Your task to perform on an android device: change keyboard looks Image 0: 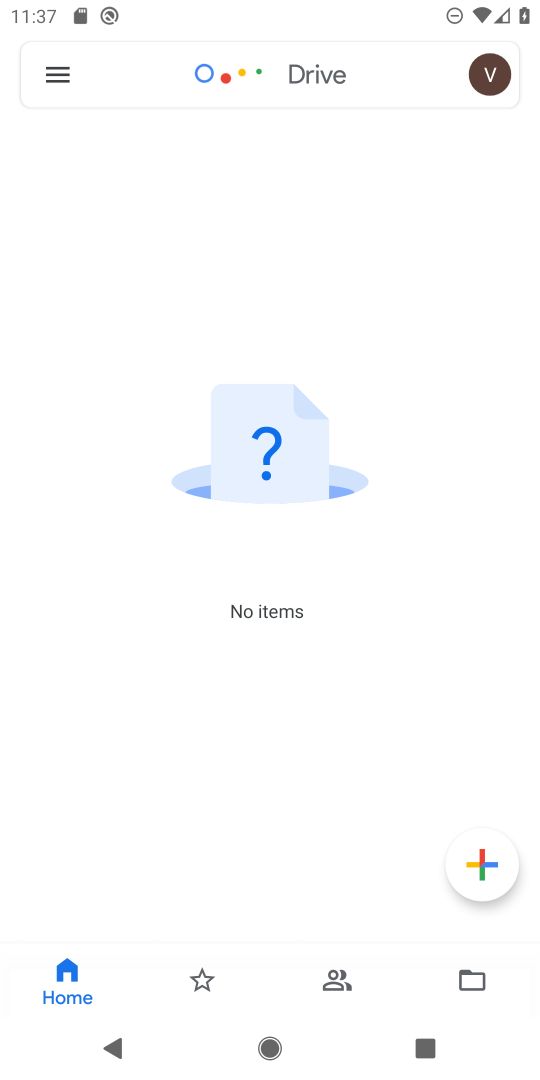
Step 0: press back button
Your task to perform on an android device: change keyboard looks Image 1: 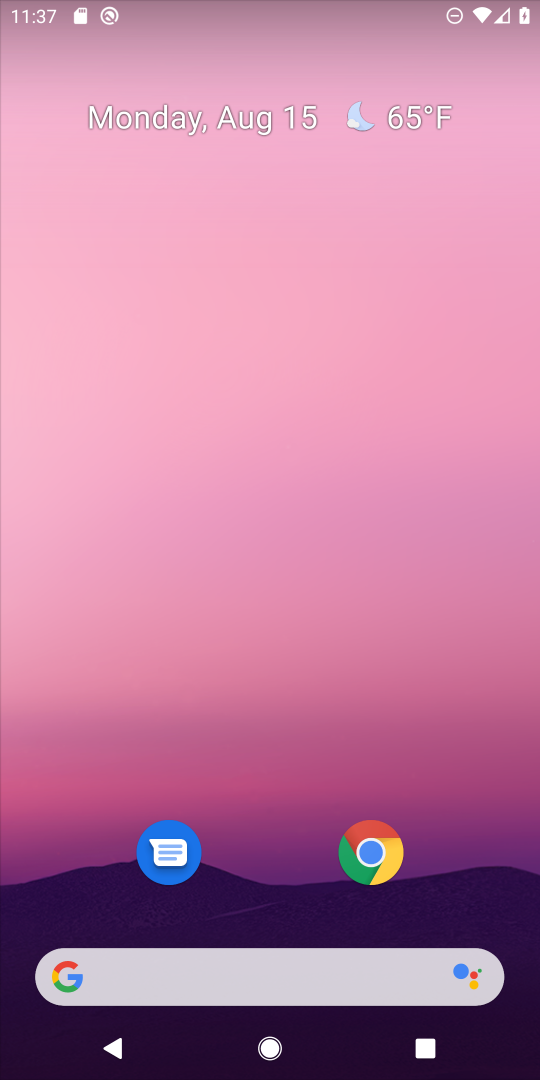
Step 1: drag from (274, 761) to (392, 18)
Your task to perform on an android device: change keyboard looks Image 2: 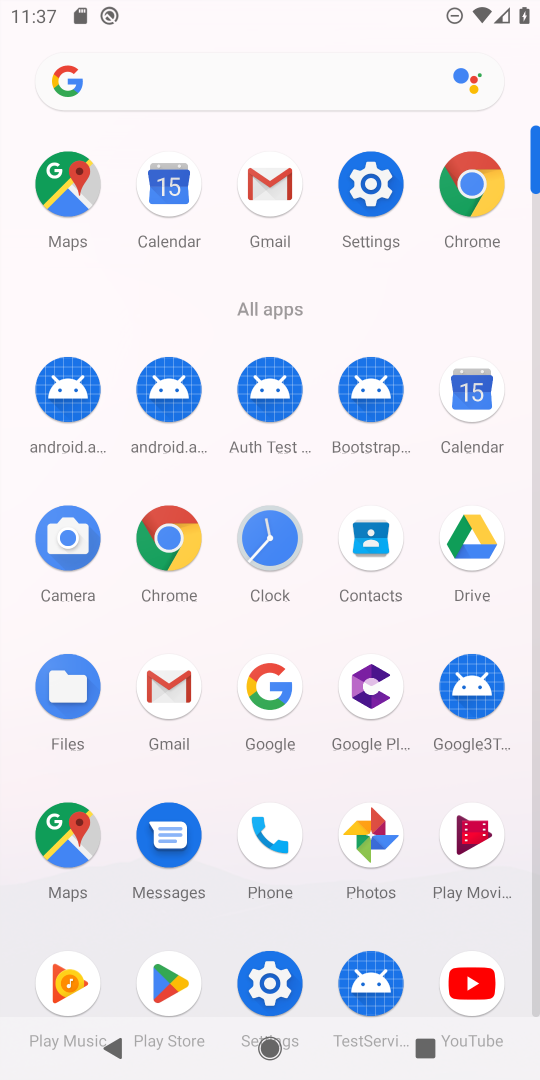
Step 2: click (381, 171)
Your task to perform on an android device: change keyboard looks Image 3: 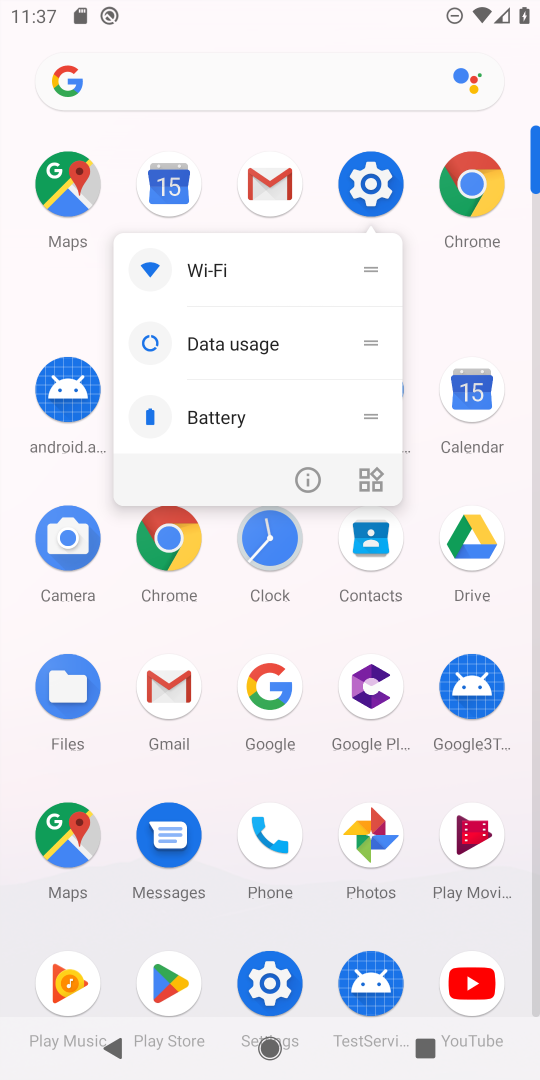
Step 3: click (360, 185)
Your task to perform on an android device: change keyboard looks Image 4: 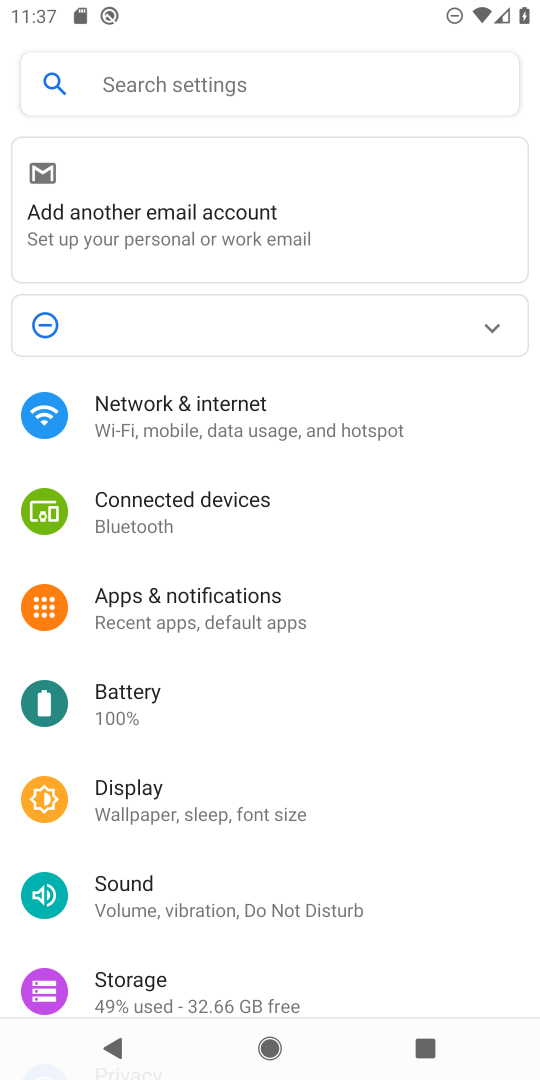
Step 4: drag from (189, 969) to (373, 11)
Your task to perform on an android device: change keyboard looks Image 5: 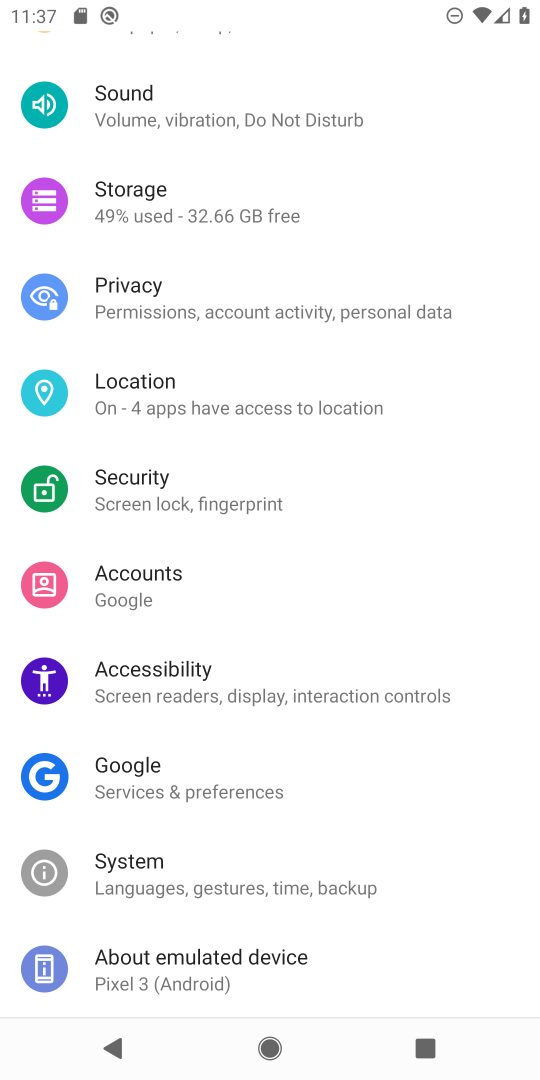
Step 5: drag from (180, 804) to (313, 183)
Your task to perform on an android device: change keyboard looks Image 6: 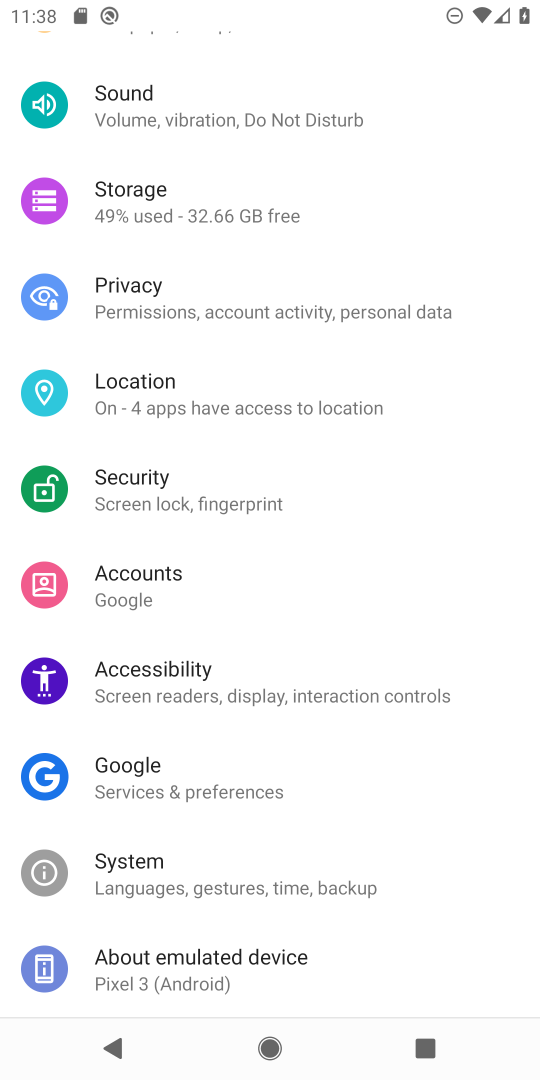
Step 6: click (256, 868)
Your task to perform on an android device: change keyboard looks Image 7: 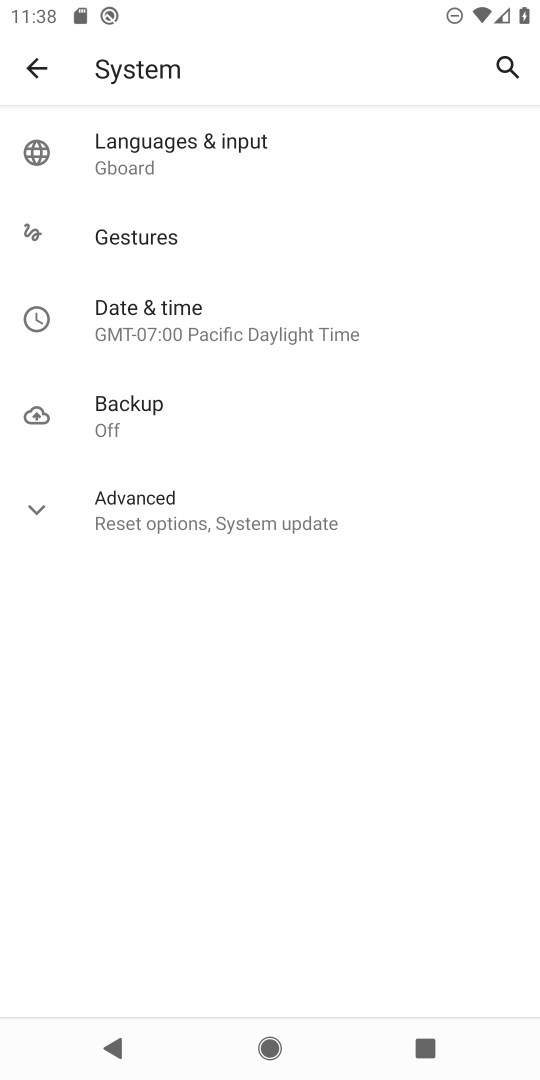
Step 7: click (184, 150)
Your task to perform on an android device: change keyboard looks Image 8: 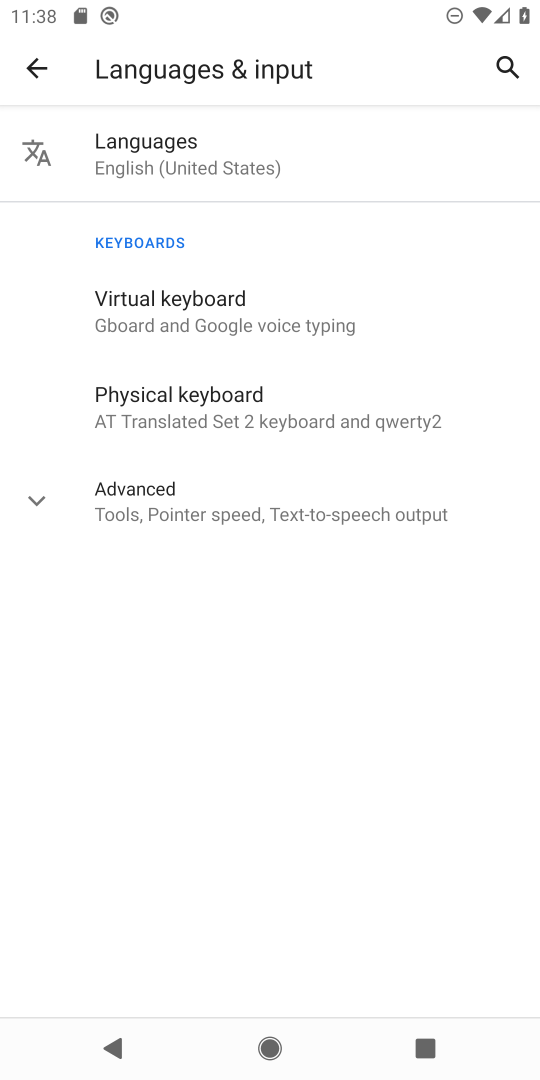
Step 8: click (246, 147)
Your task to perform on an android device: change keyboard looks Image 9: 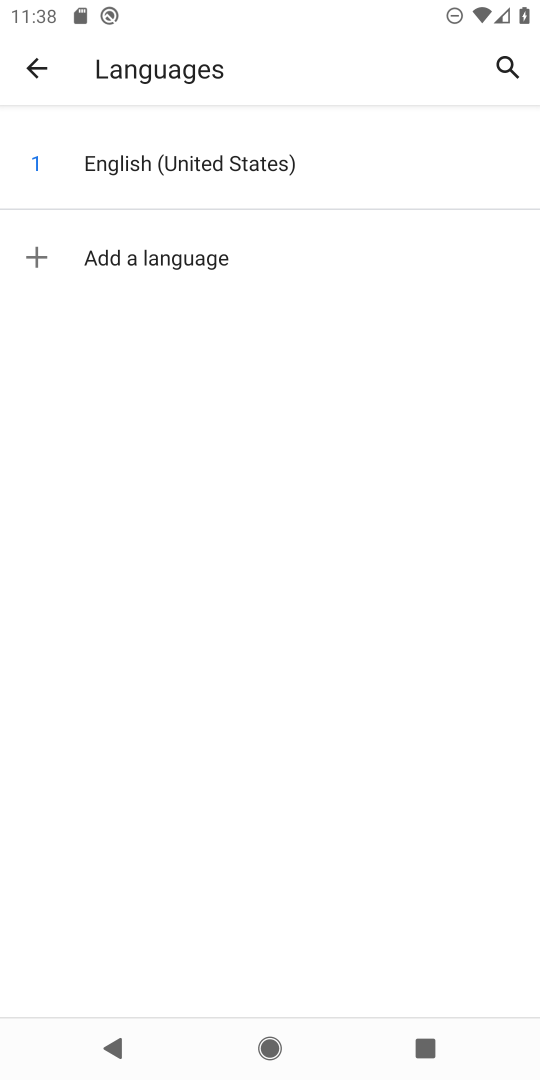
Step 9: press back button
Your task to perform on an android device: change keyboard looks Image 10: 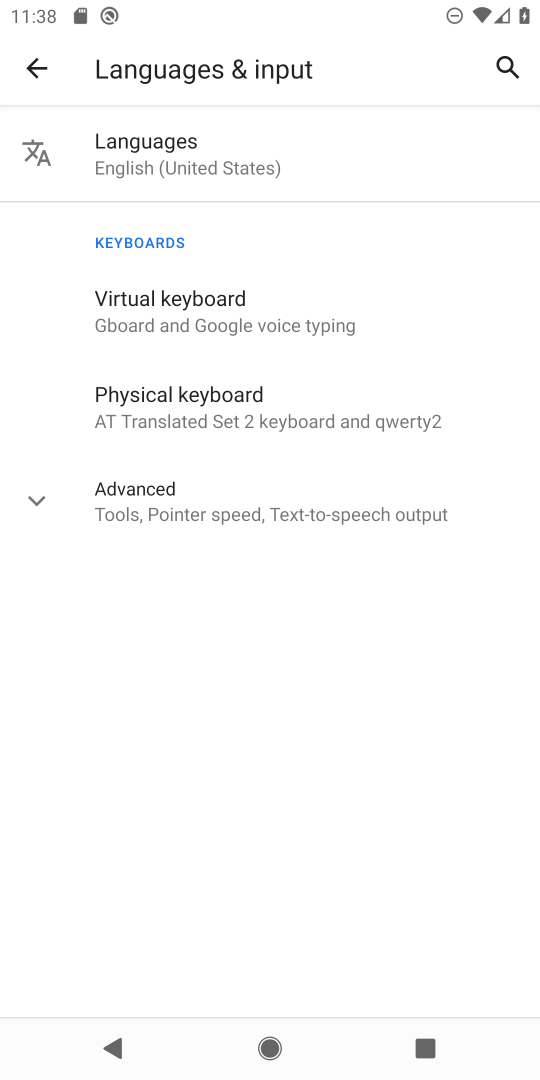
Step 10: click (201, 278)
Your task to perform on an android device: change keyboard looks Image 11: 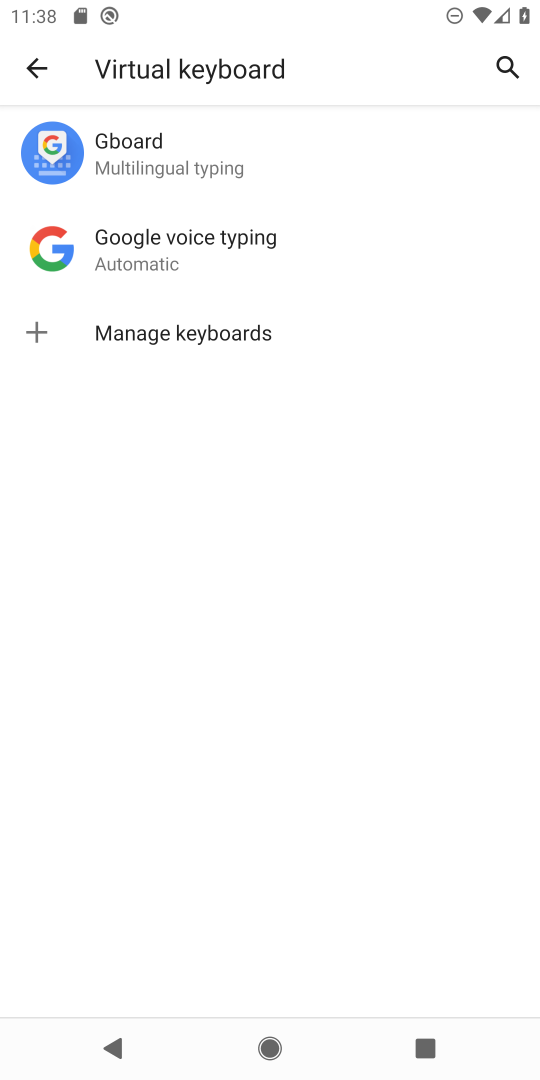
Step 11: click (174, 146)
Your task to perform on an android device: change keyboard looks Image 12: 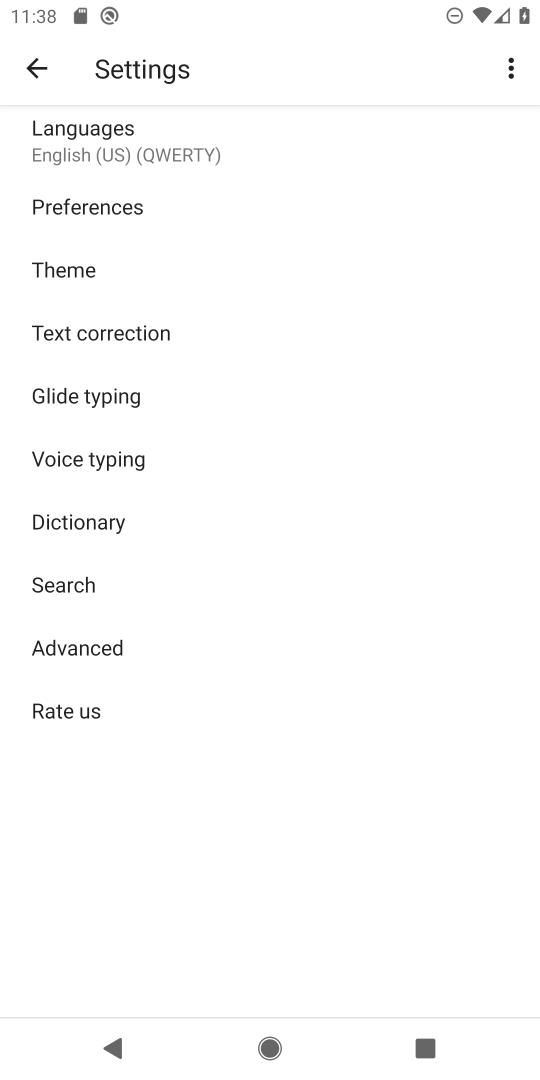
Step 12: click (109, 250)
Your task to perform on an android device: change keyboard looks Image 13: 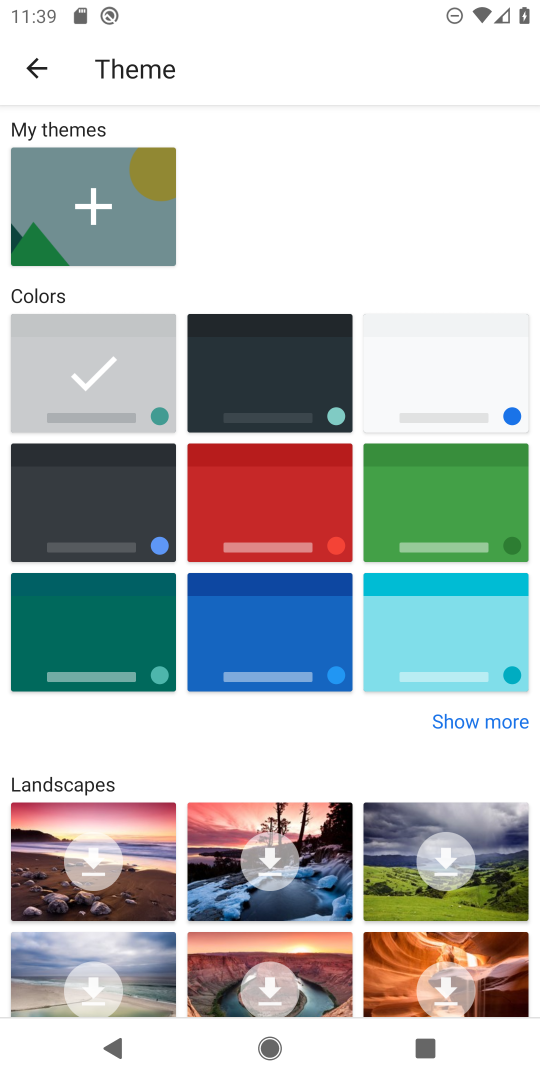
Step 13: click (404, 479)
Your task to perform on an android device: change keyboard looks Image 14: 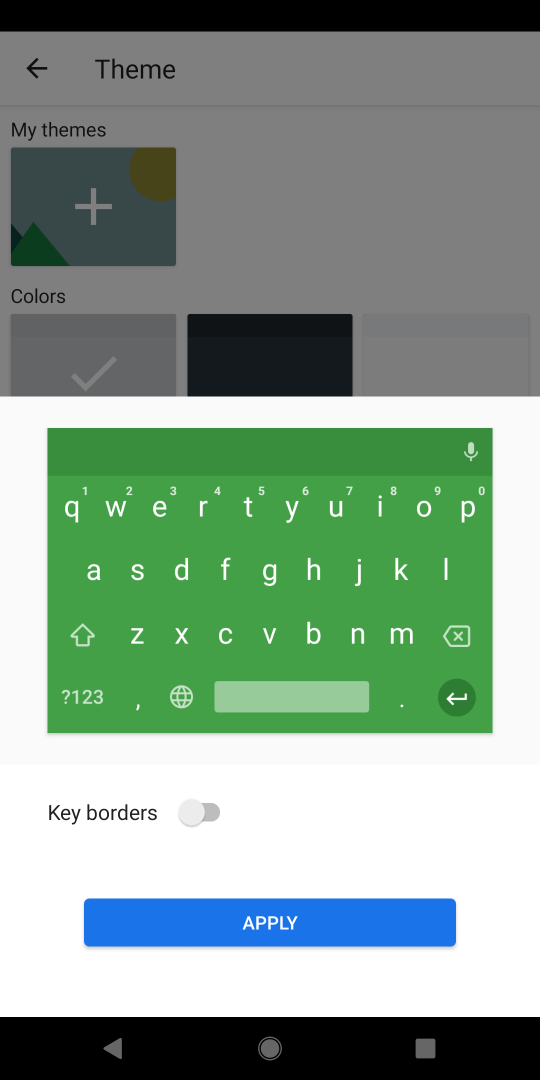
Step 14: click (222, 931)
Your task to perform on an android device: change keyboard looks Image 15: 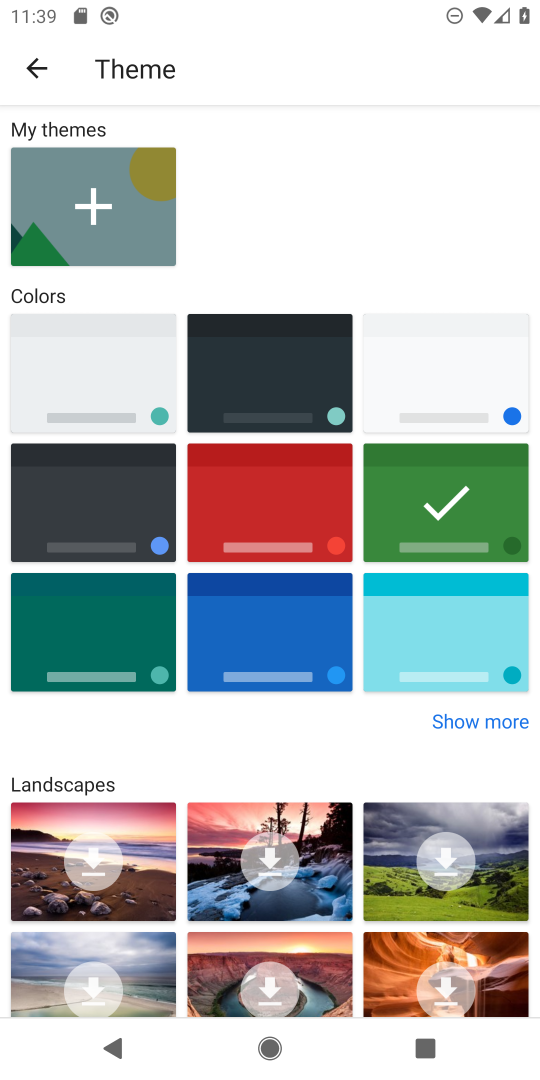
Step 15: task complete